Your task to perform on an android device: turn off notifications in google photos Image 0: 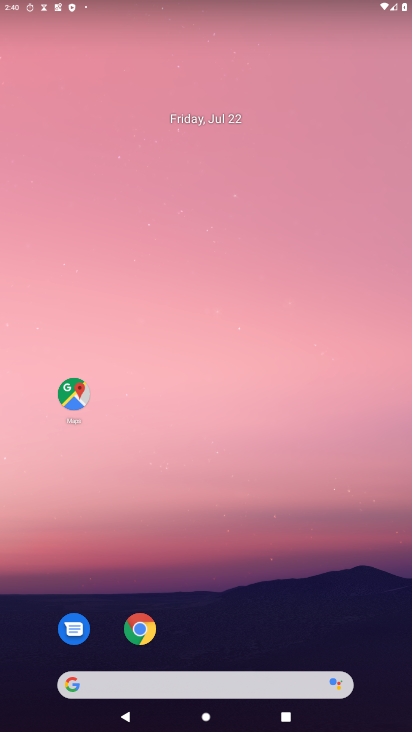
Step 0: drag from (323, 687) to (393, 135)
Your task to perform on an android device: turn off notifications in google photos Image 1: 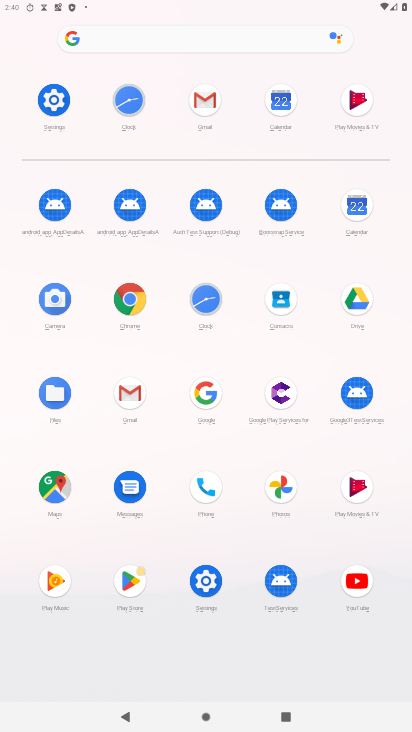
Step 1: click (278, 489)
Your task to perform on an android device: turn off notifications in google photos Image 2: 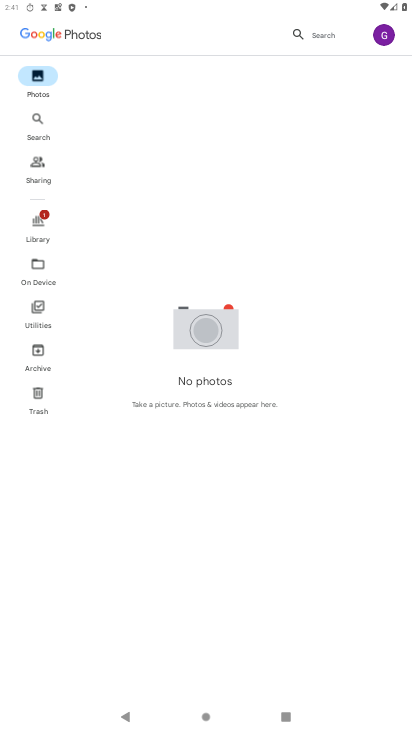
Step 2: click (390, 31)
Your task to perform on an android device: turn off notifications in google photos Image 3: 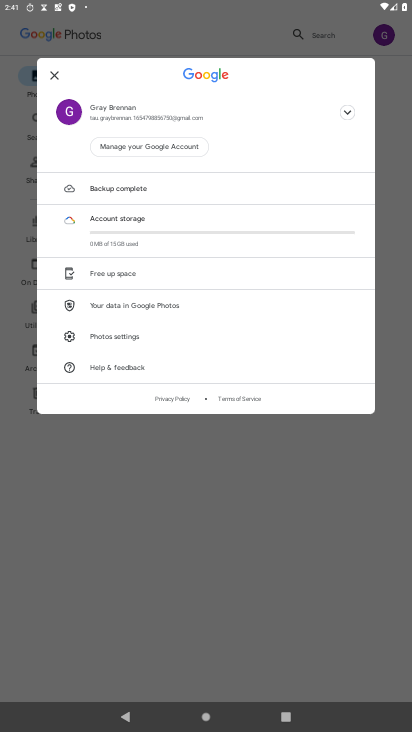
Step 3: click (153, 334)
Your task to perform on an android device: turn off notifications in google photos Image 4: 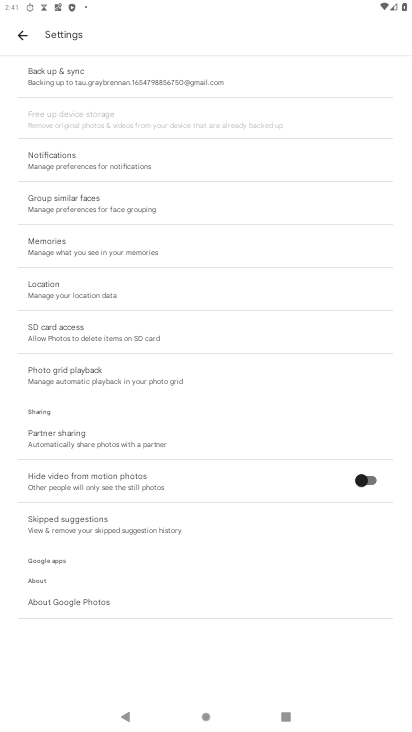
Step 4: click (113, 157)
Your task to perform on an android device: turn off notifications in google photos Image 5: 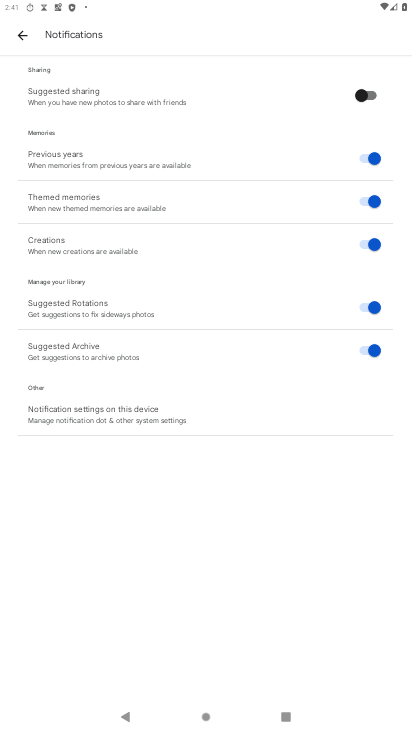
Step 5: click (168, 422)
Your task to perform on an android device: turn off notifications in google photos Image 6: 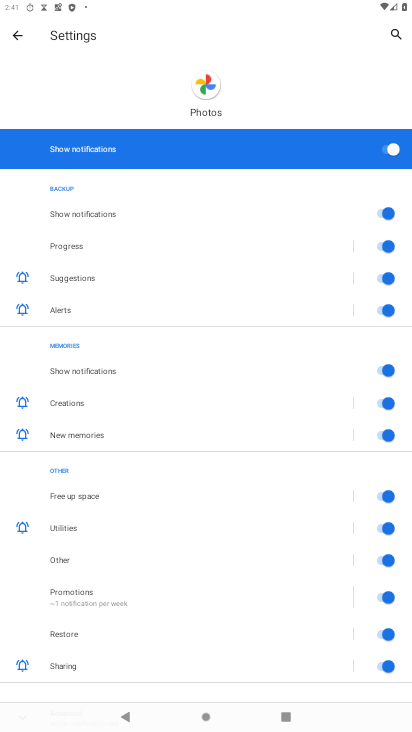
Step 6: click (394, 146)
Your task to perform on an android device: turn off notifications in google photos Image 7: 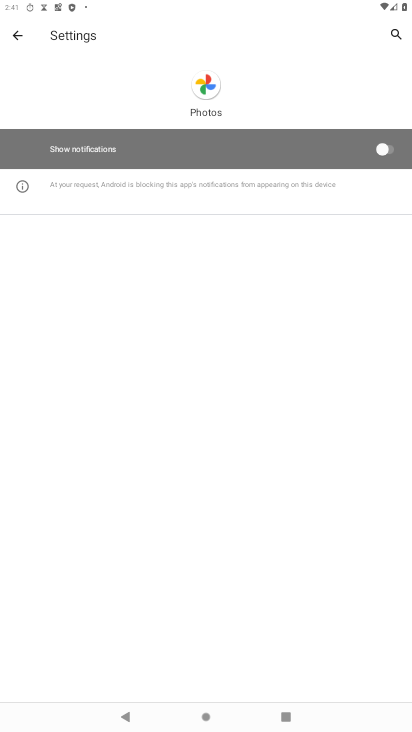
Step 7: task complete